Your task to perform on an android device: View the shopping cart on ebay.com. Search for "sony triple a" on ebay.com, select the first entry, add it to the cart, then select checkout. Image 0: 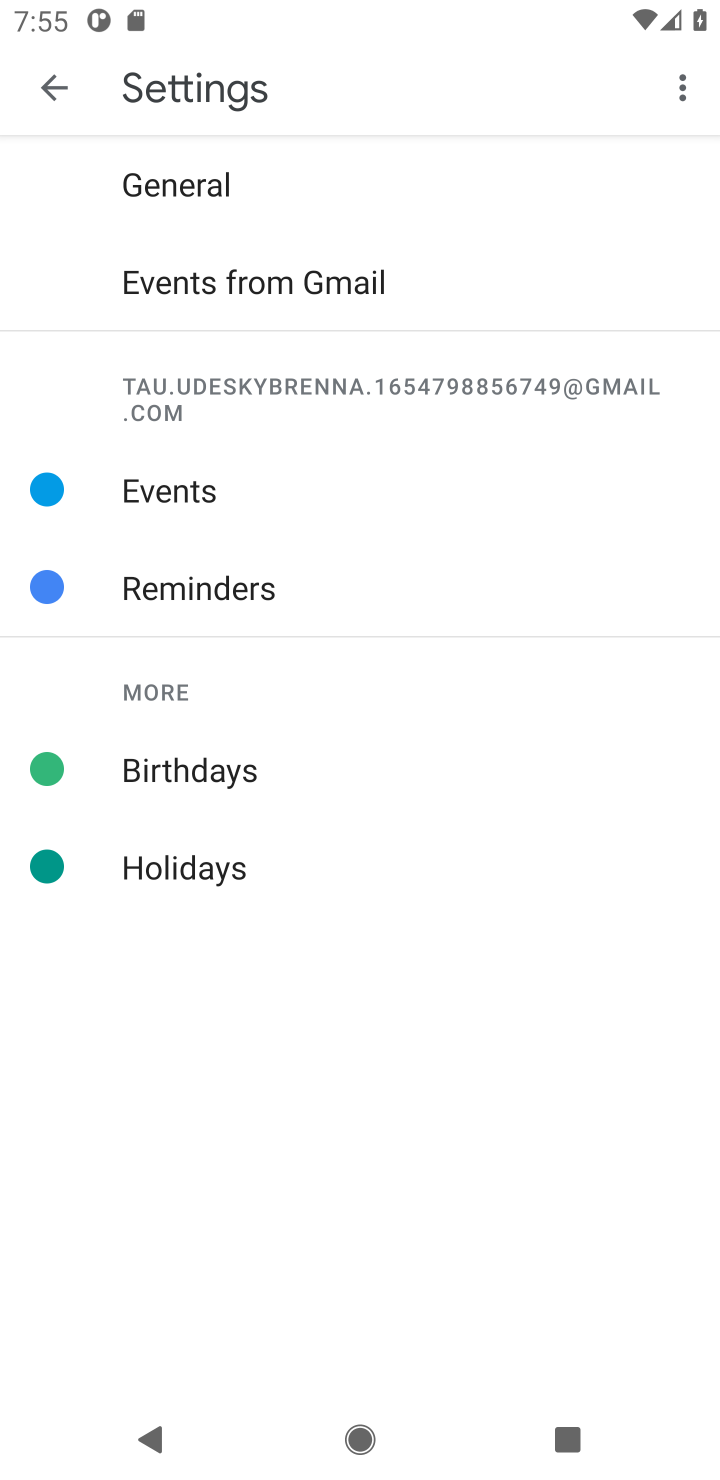
Step 0: press home button
Your task to perform on an android device: View the shopping cart on ebay.com. Search for "sony triple a" on ebay.com, select the first entry, add it to the cart, then select checkout. Image 1: 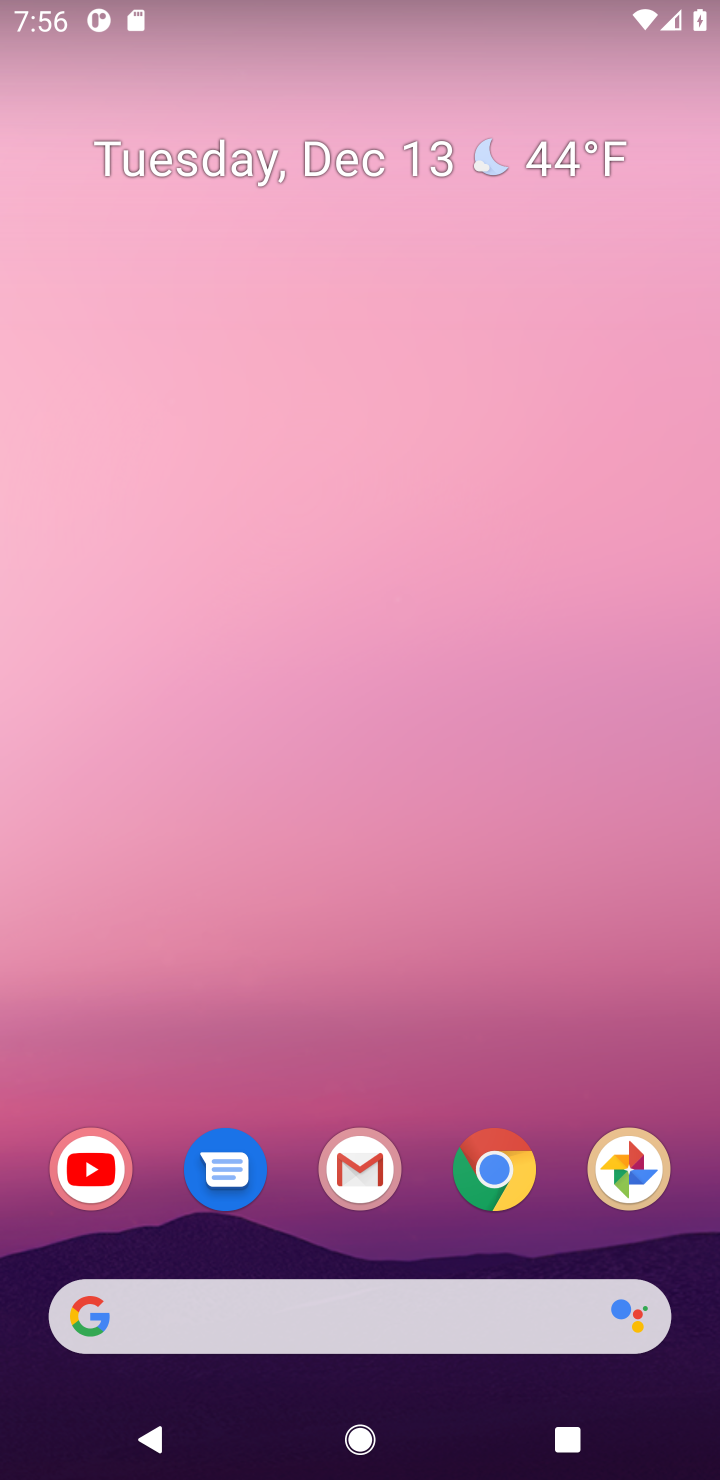
Step 1: click (490, 1174)
Your task to perform on an android device: View the shopping cart on ebay.com. Search for "sony triple a" on ebay.com, select the first entry, add it to the cart, then select checkout. Image 2: 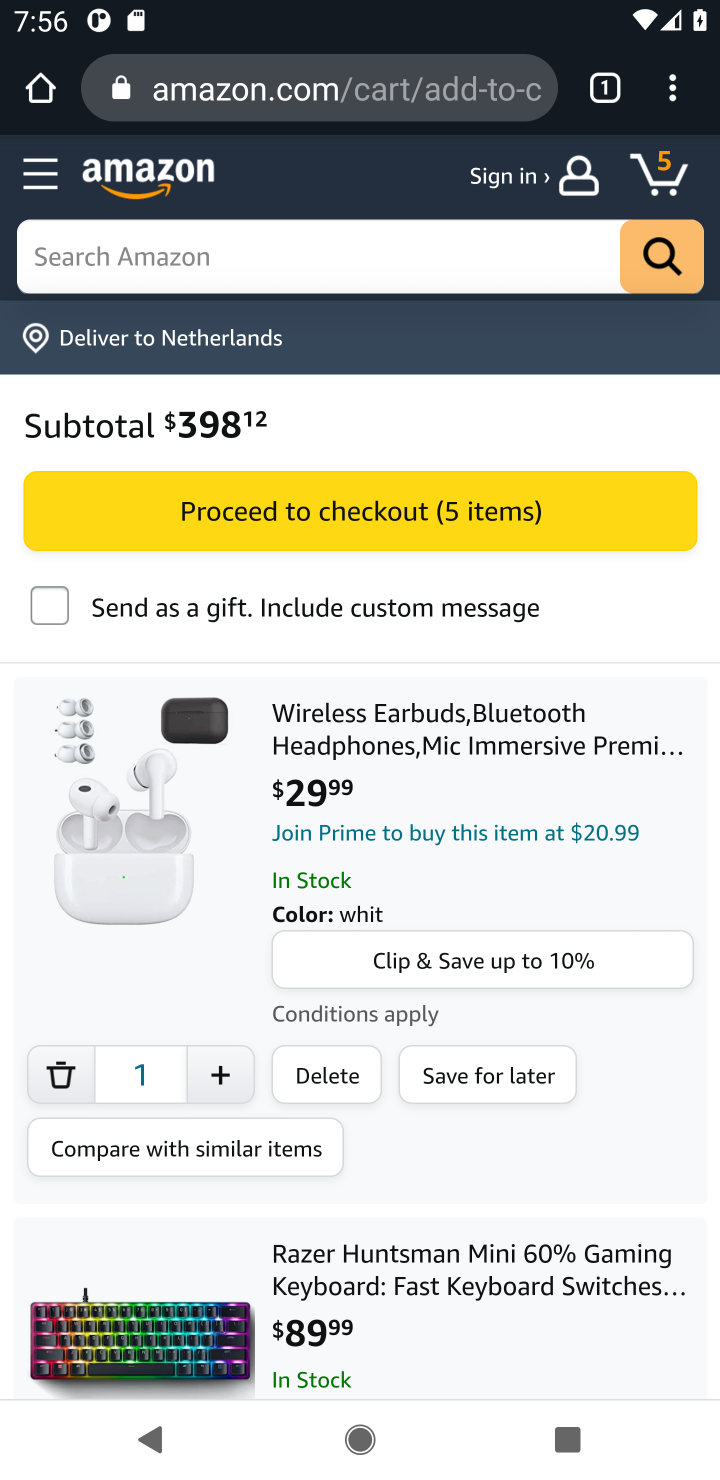
Step 2: click (259, 117)
Your task to perform on an android device: View the shopping cart on ebay.com. Search for "sony triple a" on ebay.com, select the first entry, add it to the cart, then select checkout. Image 3: 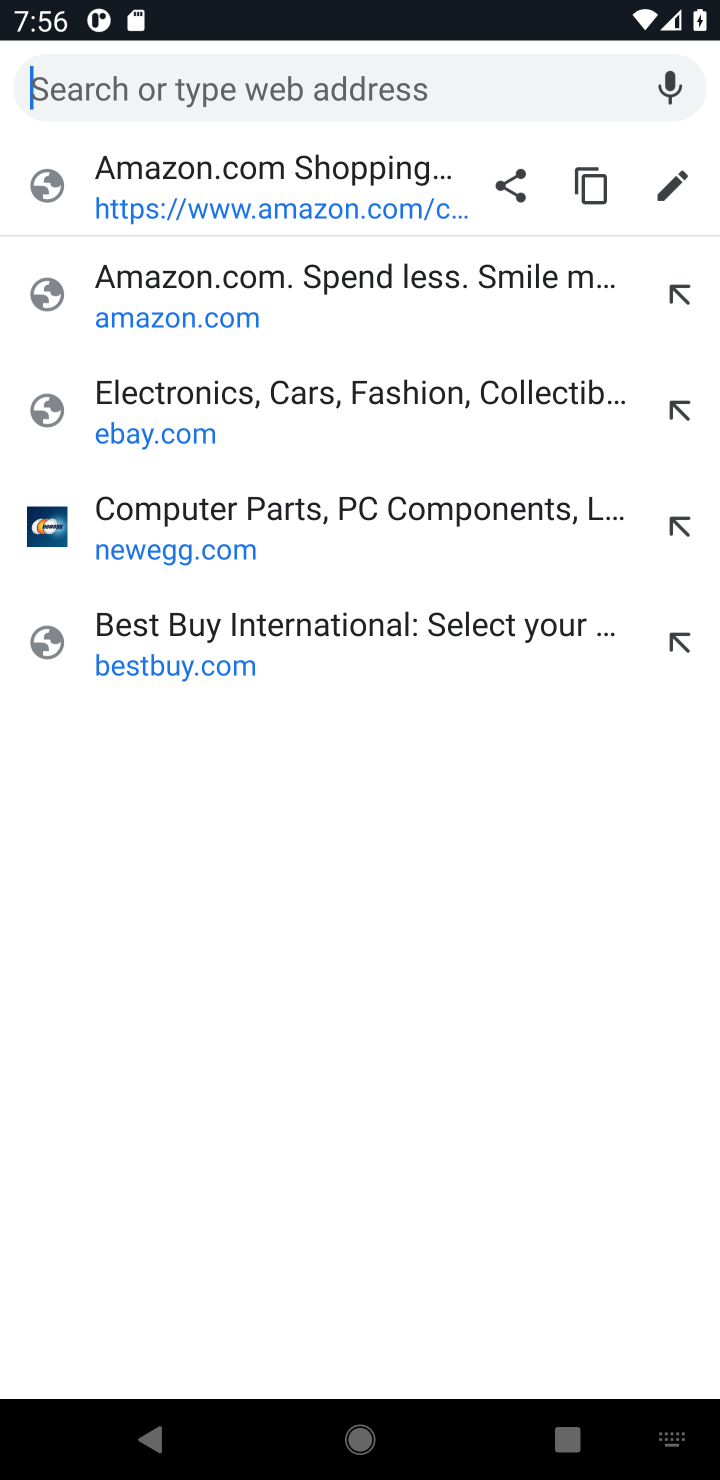
Step 3: type "ebay.com"
Your task to perform on an android device: View the shopping cart on ebay.com. Search for "sony triple a" on ebay.com, select the first entry, add it to the cart, then select checkout. Image 4: 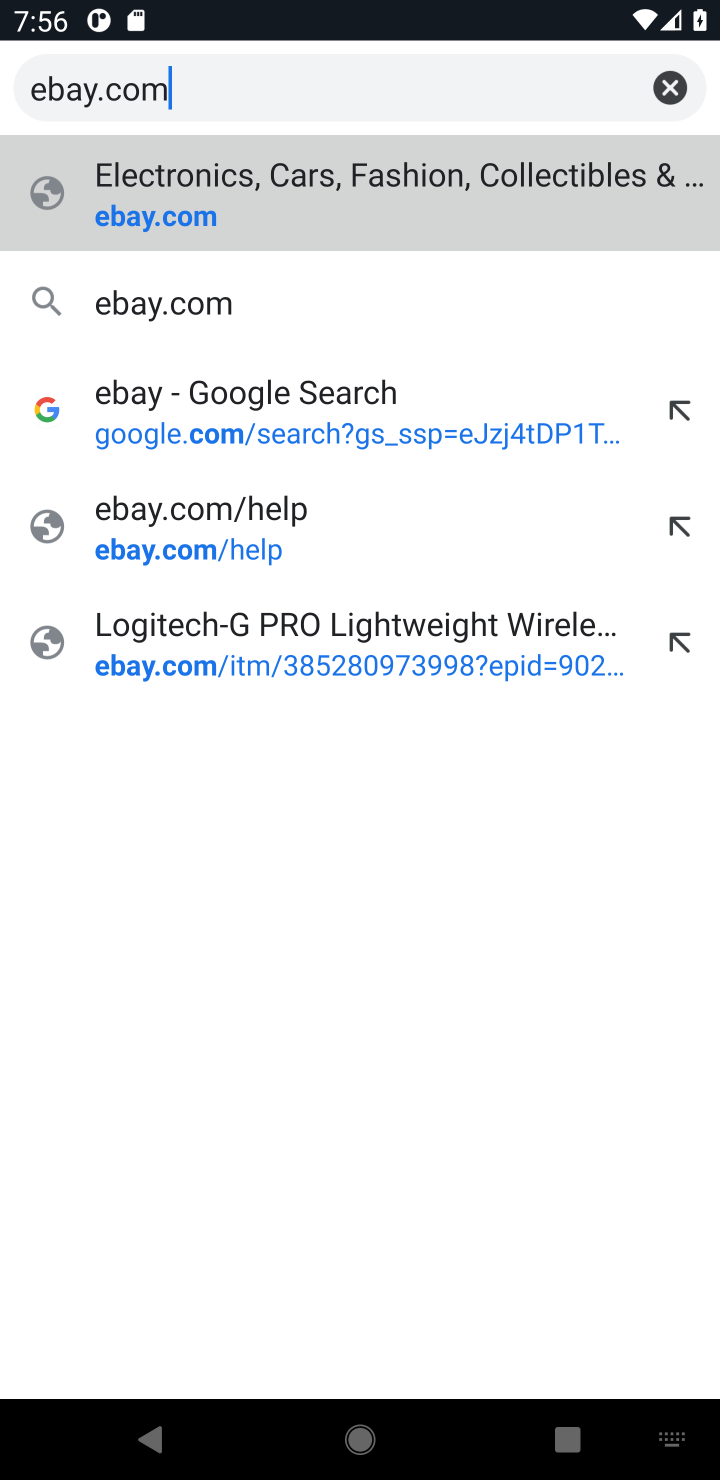
Step 4: click (391, 174)
Your task to perform on an android device: View the shopping cart on ebay.com. Search for "sony triple a" on ebay.com, select the first entry, add it to the cart, then select checkout. Image 5: 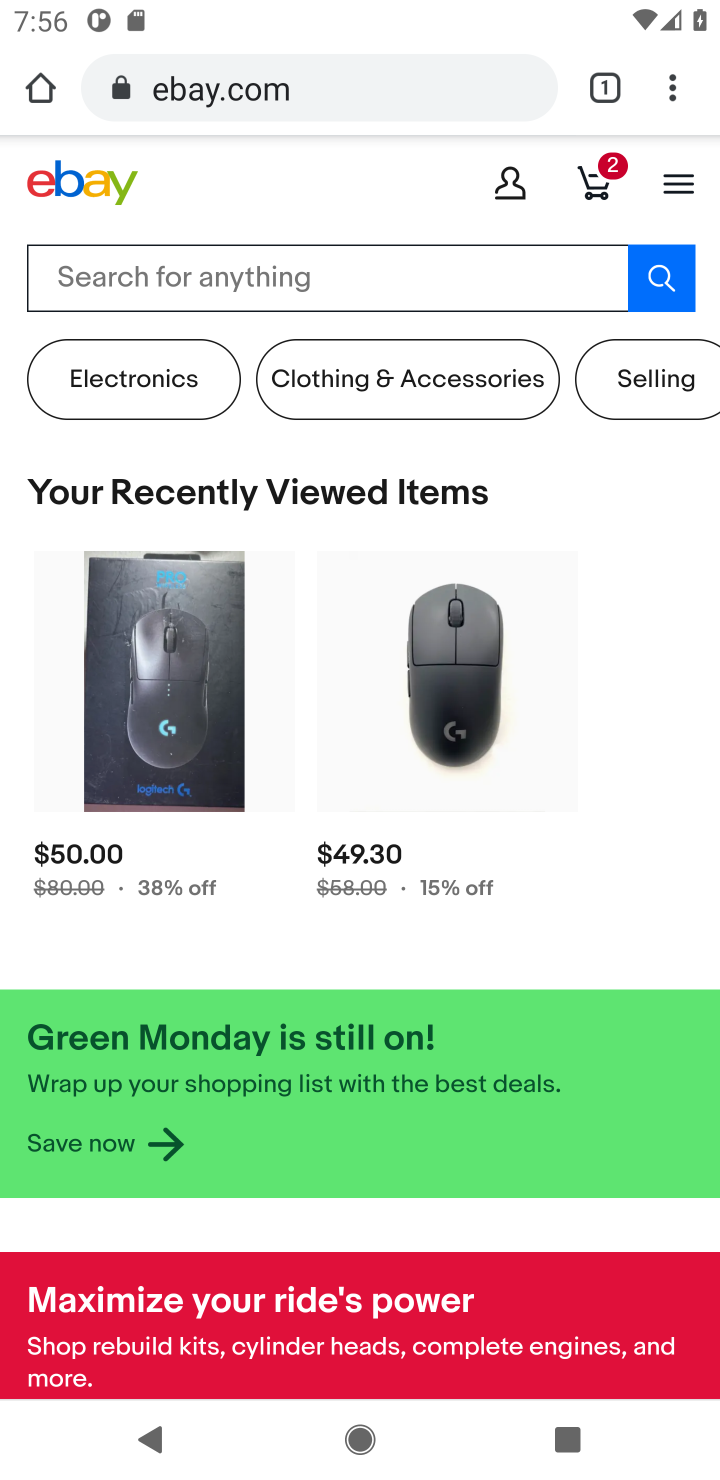
Step 5: click (162, 650)
Your task to perform on an android device: View the shopping cart on ebay.com. Search for "sony triple a" on ebay.com, select the first entry, add it to the cart, then select checkout. Image 6: 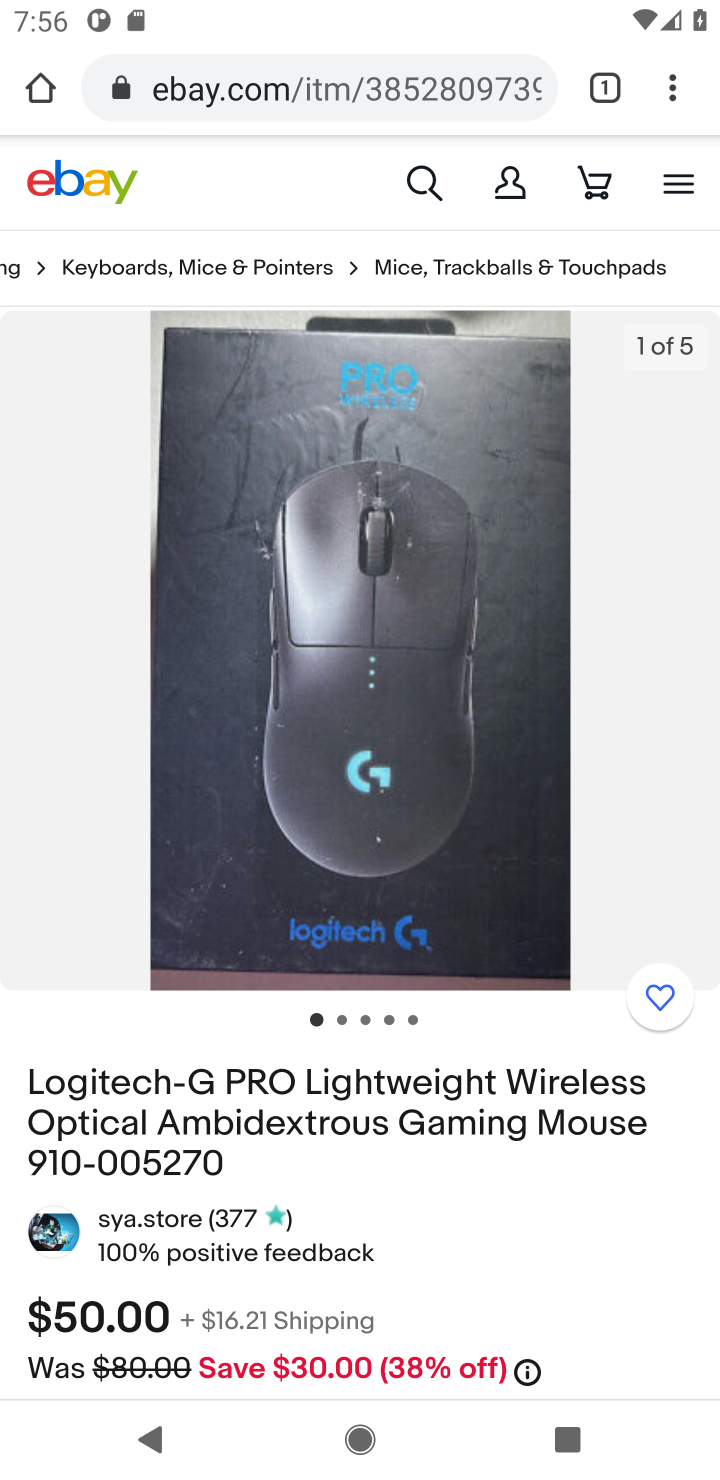
Step 6: drag from (520, 1233) to (501, 593)
Your task to perform on an android device: View the shopping cart on ebay.com. Search for "sony triple a" on ebay.com, select the first entry, add it to the cart, then select checkout. Image 7: 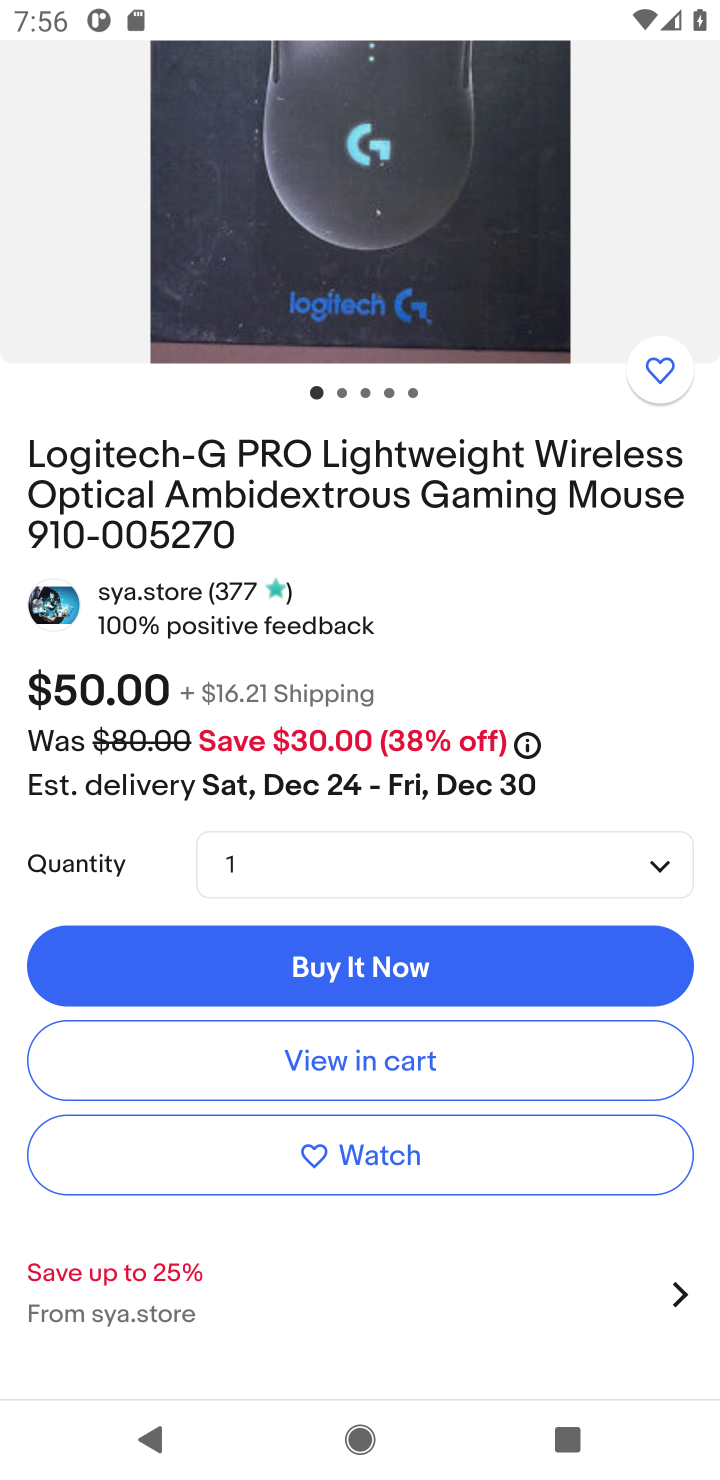
Step 7: click (467, 1051)
Your task to perform on an android device: View the shopping cart on ebay.com. Search for "sony triple a" on ebay.com, select the first entry, add it to the cart, then select checkout. Image 8: 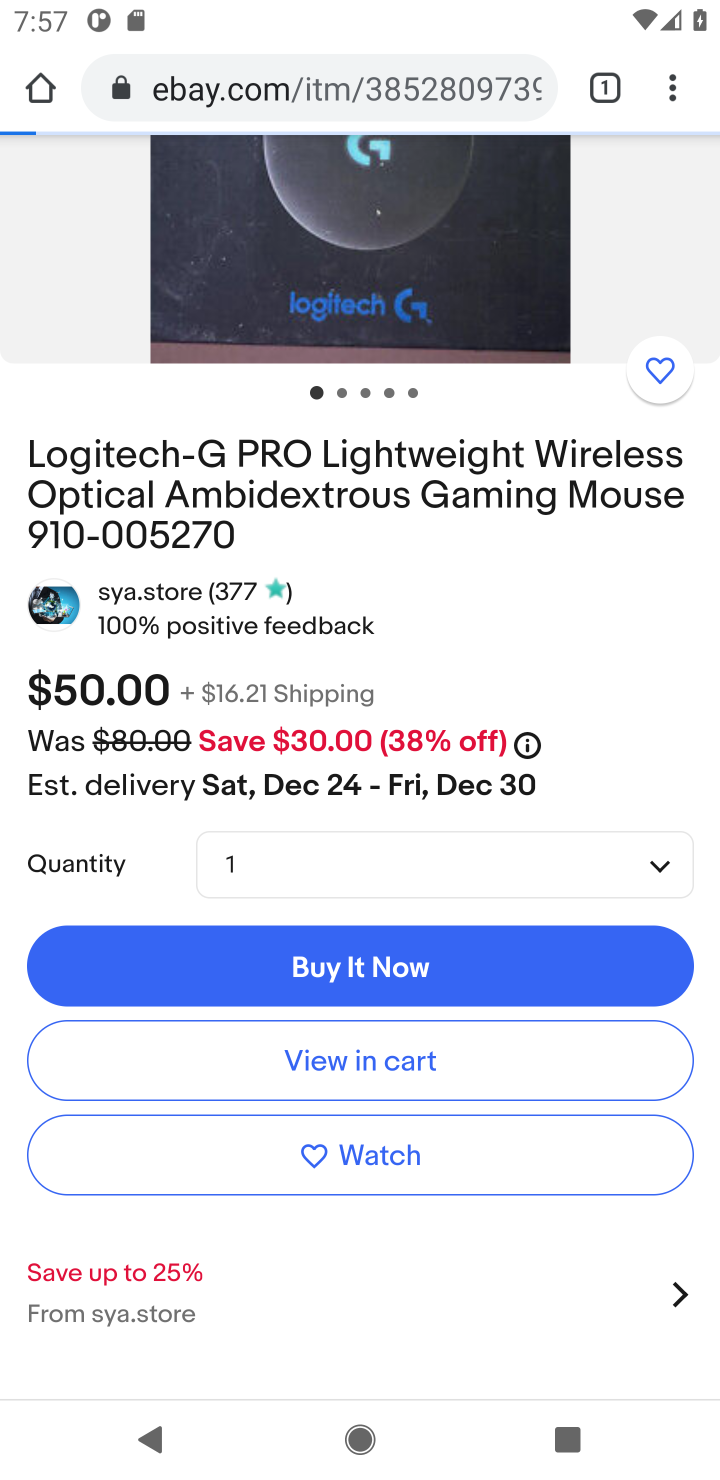
Step 8: task complete